Your task to perform on an android device: Open the calendar app, open the side menu, and click the "Day" option Image 0: 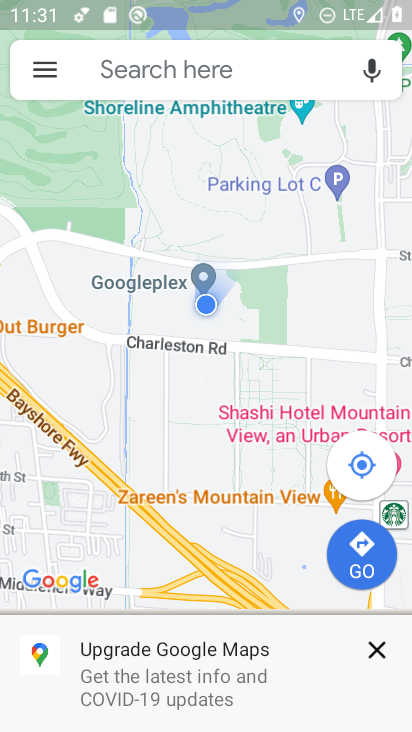
Step 0: press home button
Your task to perform on an android device: Open the calendar app, open the side menu, and click the "Day" option Image 1: 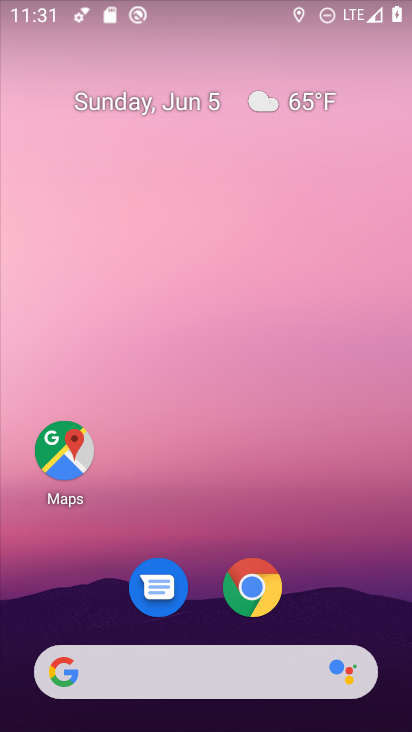
Step 1: click (161, 98)
Your task to perform on an android device: Open the calendar app, open the side menu, and click the "Day" option Image 2: 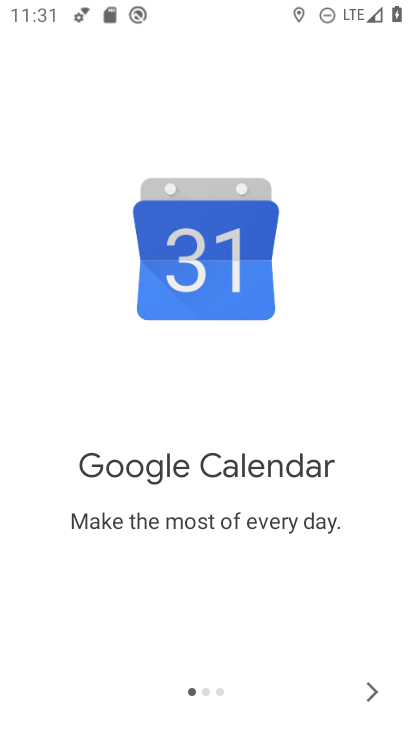
Step 2: click (370, 682)
Your task to perform on an android device: Open the calendar app, open the side menu, and click the "Day" option Image 3: 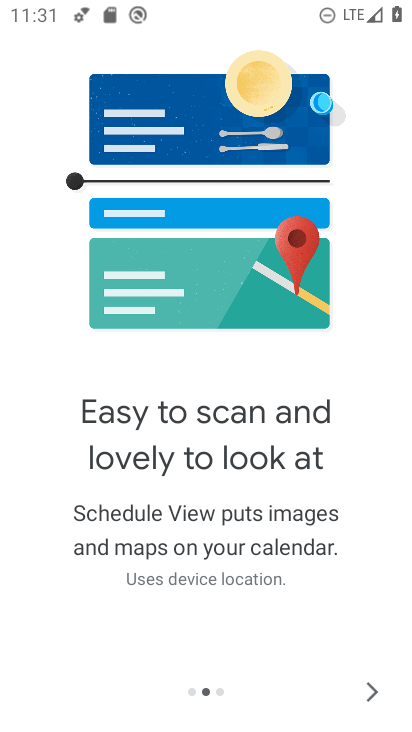
Step 3: click (370, 682)
Your task to perform on an android device: Open the calendar app, open the side menu, and click the "Day" option Image 4: 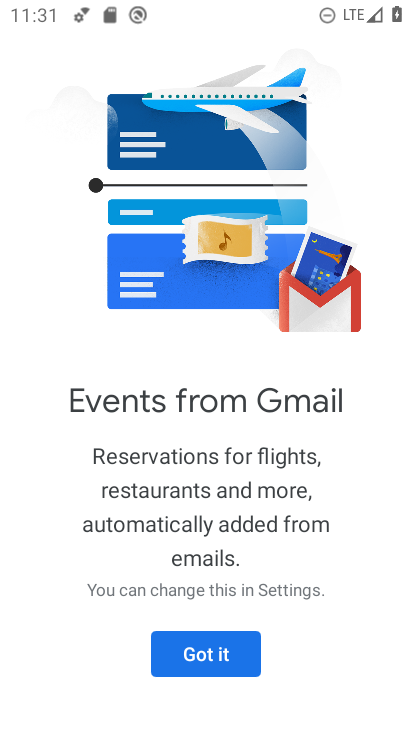
Step 4: click (176, 659)
Your task to perform on an android device: Open the calendar app, open the side menu, and click the "Day" option Image 5: 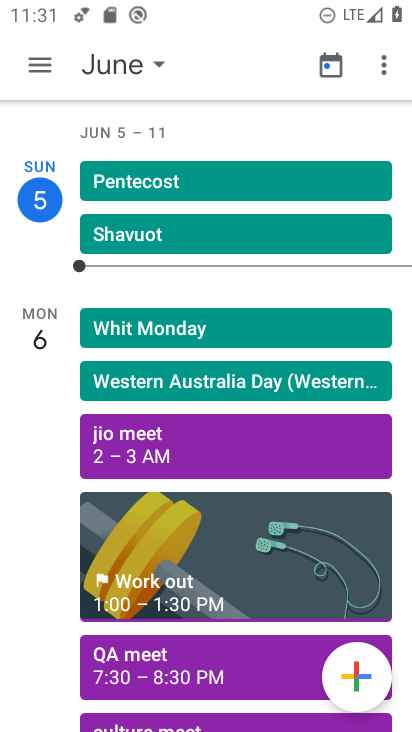
Step 5: click (50, 72)
Your task to perform on an android device: Open the calendar app, open the side menu, and click the "Day" option Image 6: 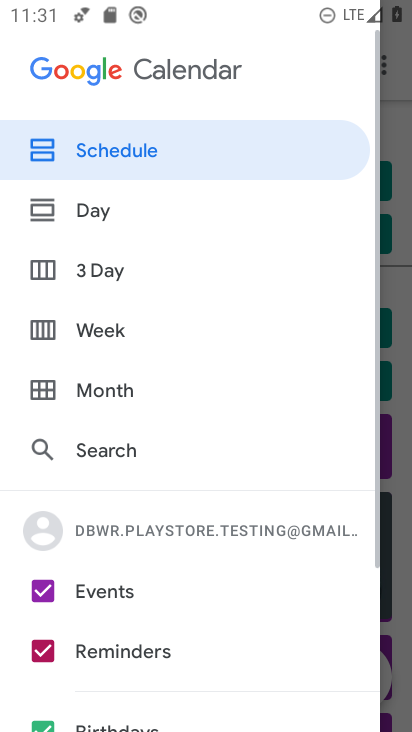
Step 6: click (93, 229)
Your task to perform on an android device: Open the calendar app, open the side menu, and click the "Day" option Image 7: 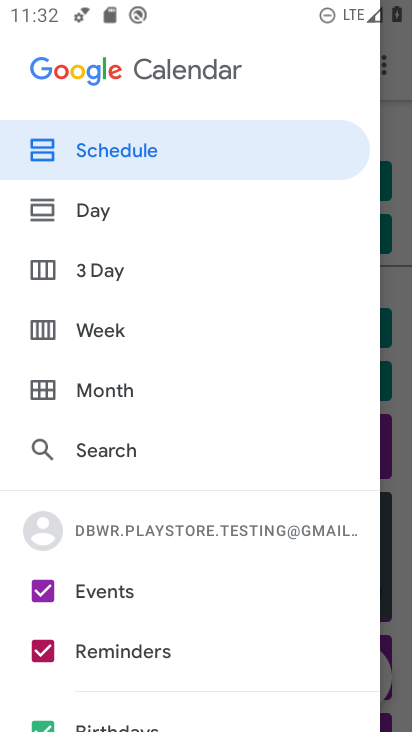
Step 7: click (106, 215)
Your task to perform on an android device: Open the calendar app, open the side menu, and click the "Day" option Image 8: 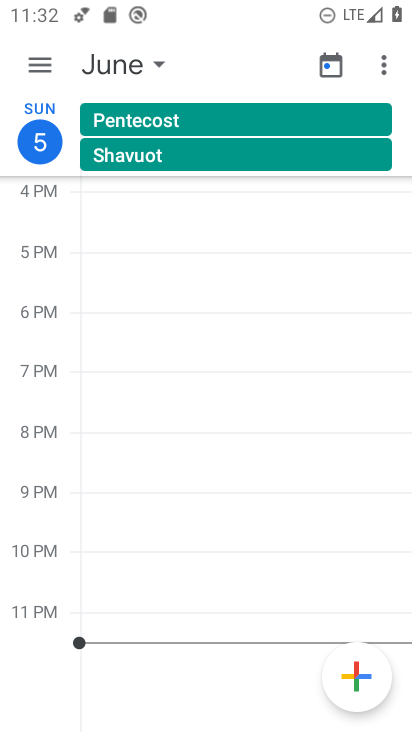
Step 8: task complete